Your task to perform on an android device: change the clock style Image 0: 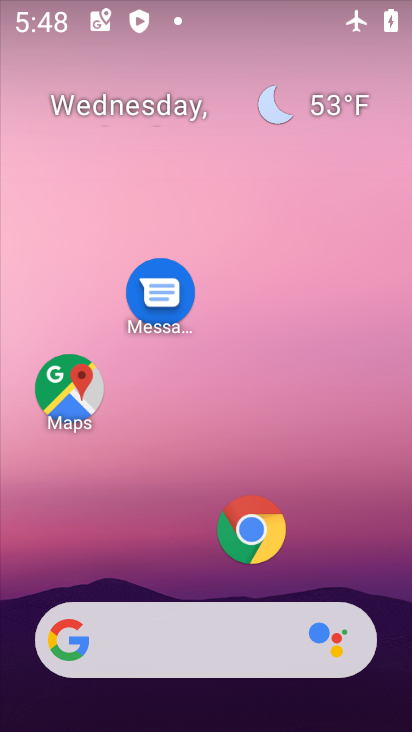
Step 0: drag from (210, 574) to (239, 143)
Your task to perform on an android device: change the clock style Image 1: 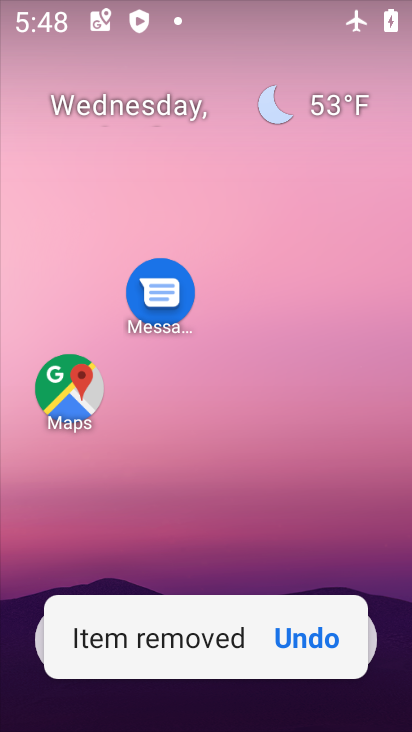
Step 1: click (288, 642)
Your task to perform on an android device: change the clock style Image 2: 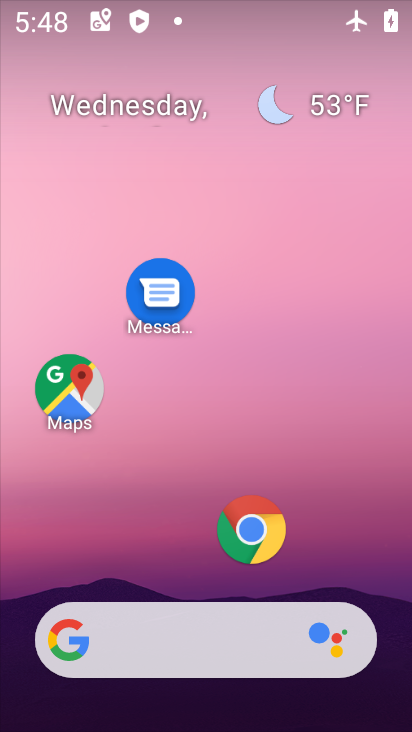
Step 2: drag from (207, 578) to (199, 101)
Your task to perform on an android device: change the clock style Image 3: 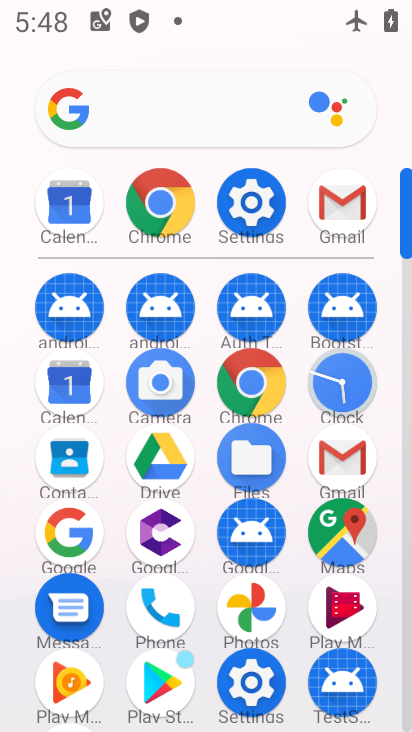
Step 3: click (253, 212)
Your task to perform on an android device: change the clock style Image 4: 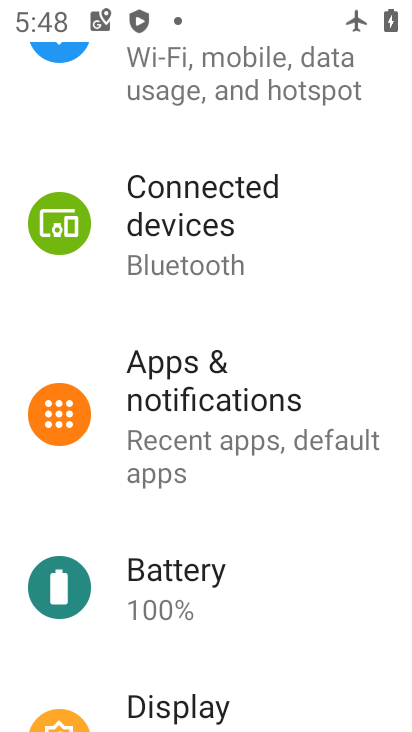
Step 4: drag from (261, 564) to (261, 627)
Your task to perform on an android device: change the clock style Image 5: 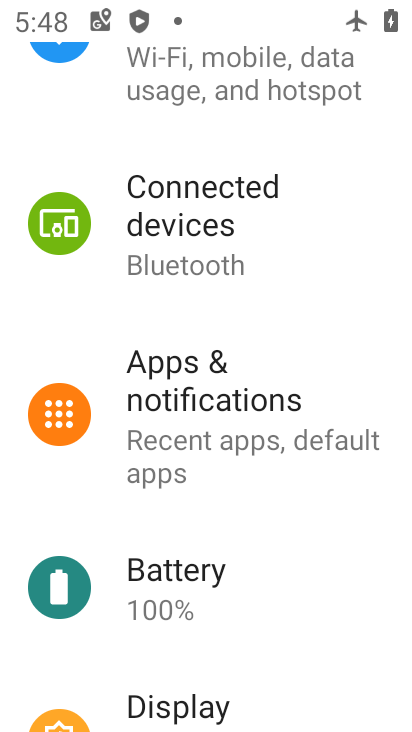
Step 5: press back button
Your task to perform on an android device: change the clock style Image 6: 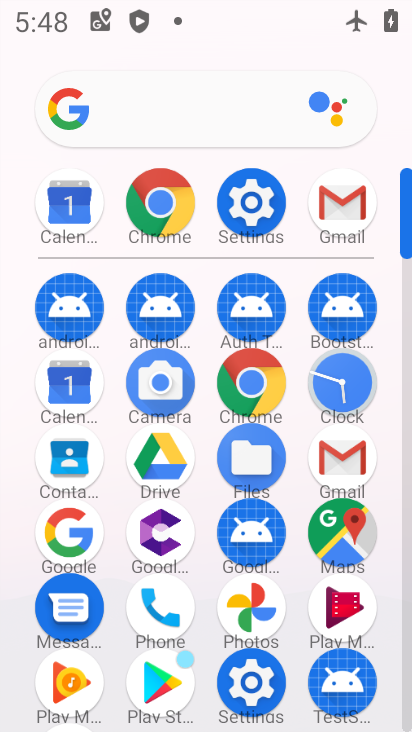
Step 6: click (342, 390)
Your task to perform on an android device: change the clock style Image 7: 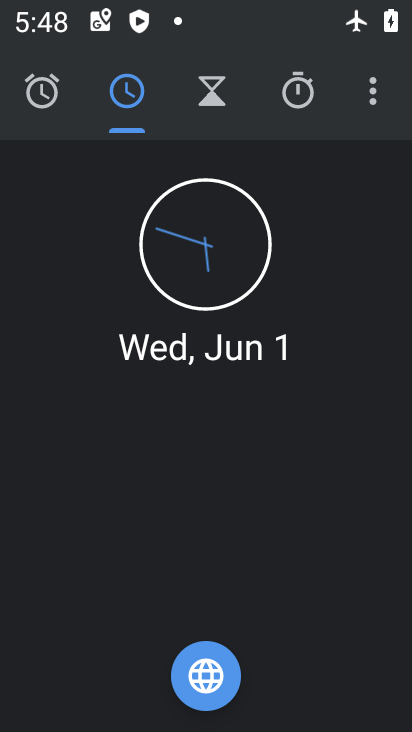
Step 7: click (371, 105)
Your task to perform on an android device: change the clock style Image 8: 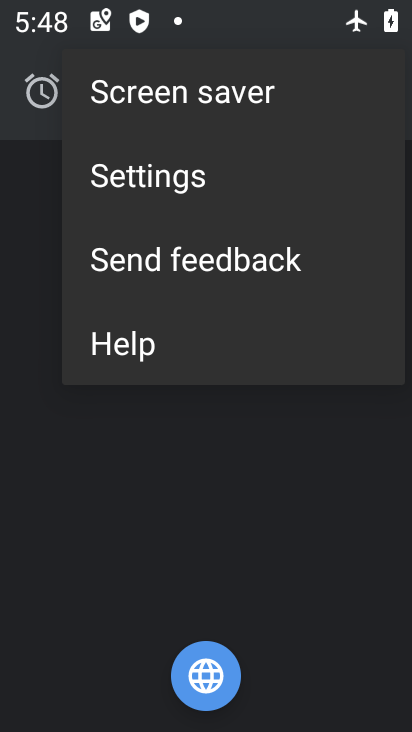
Step 8: click (213, 181)
Your task to perform on an android device: change the clock style Image 9: 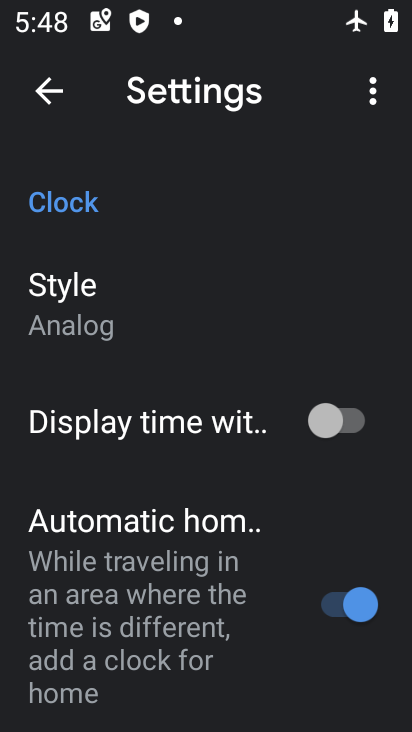
Step 9: click (86, 329)
Your task to perform on an android device: change the clock style Image 10: 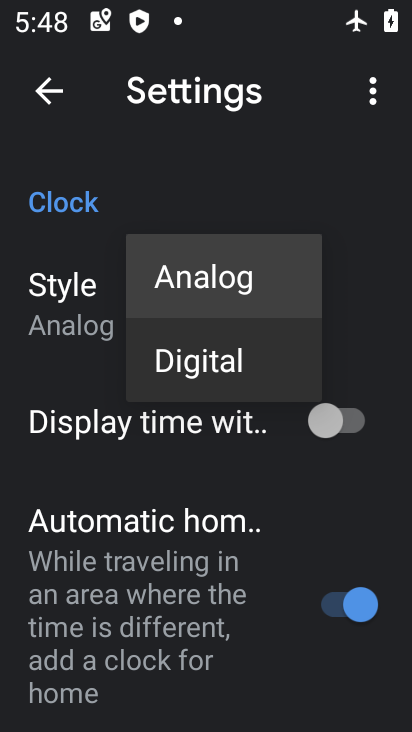
Step 10: click (154, 373)
Your task to perform on an android device: change the clock style Image 11: 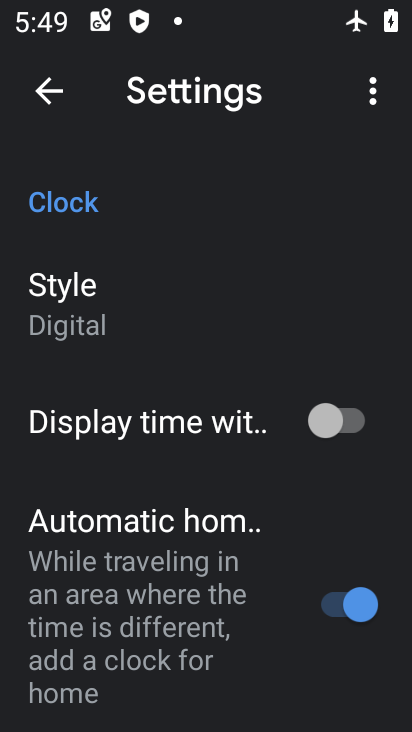
Step 11: task complete